Your task to perform on an android device: Open Yahoo.com Image 0: 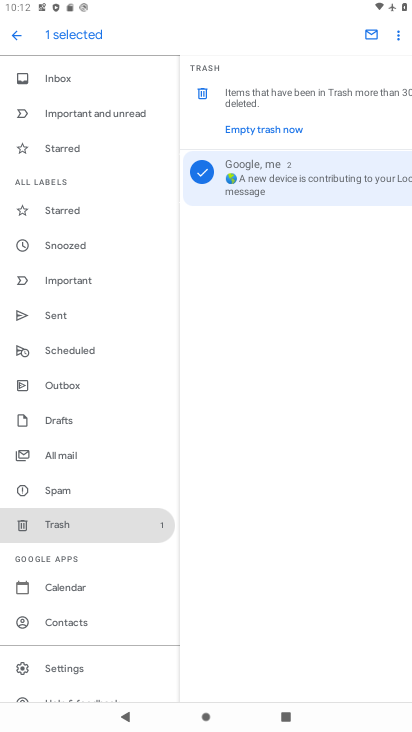
Step 0: press home button
Your task to perform on an android device: Open Yahoo.com Image 1: 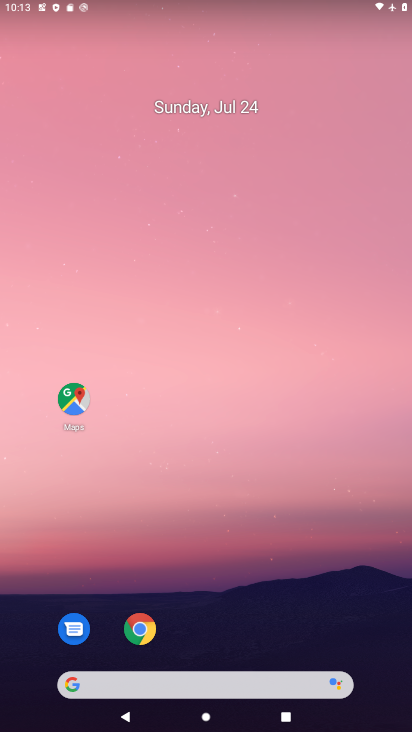
Step 1: click (206, 672)
Your task to perform on an android device: Open Yahoo.com Image 2: 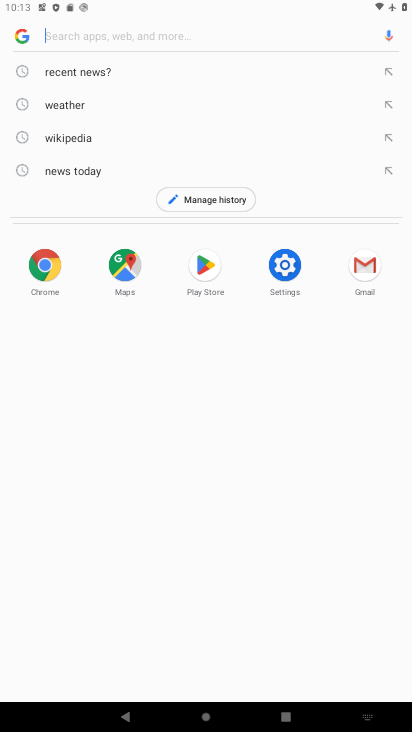
Step 2: type "yahoo.com"
Your task to perform on an android device: Open Yahoo.com Image 3: 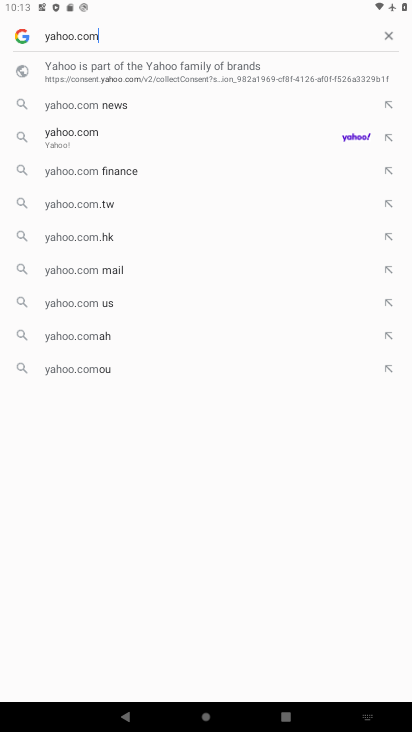
Step 3: click (180, 58)
Your task to perform on an android device: Open Yahoo.com Image 4: 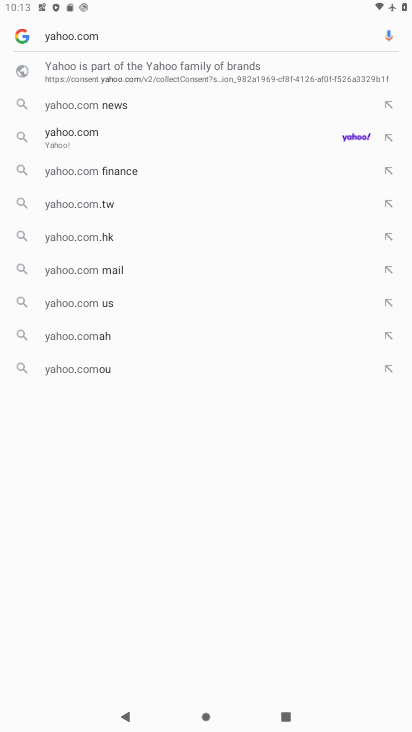
Step 4: task complete